Your task to perform on an android device: toggle wifi Image 0: 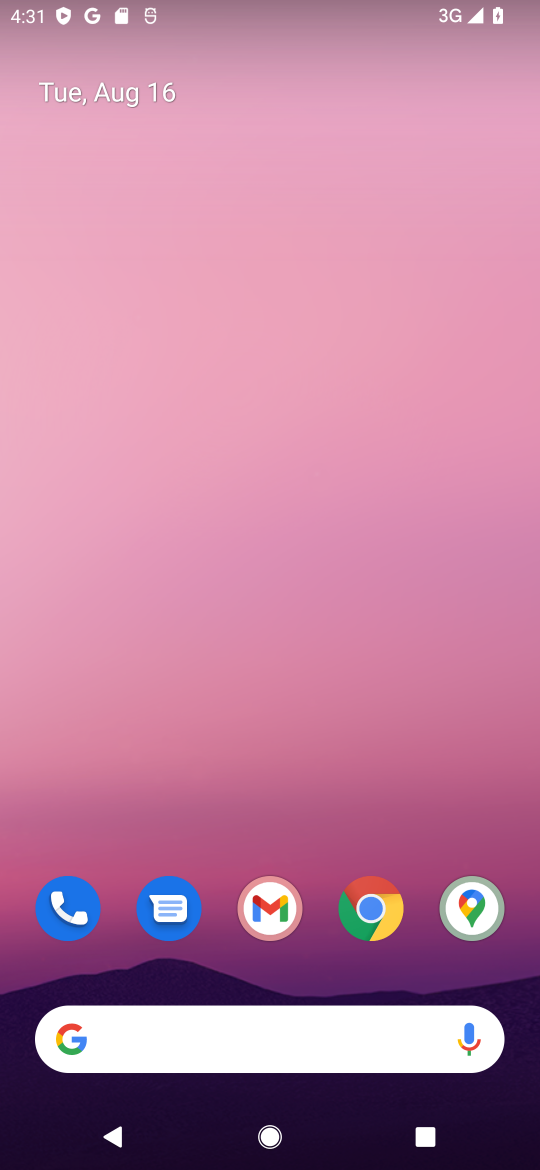
Step 0: drag from (205, 39) to (229, 815)
Your task to perform on an android device: toggle wifi Image 1: 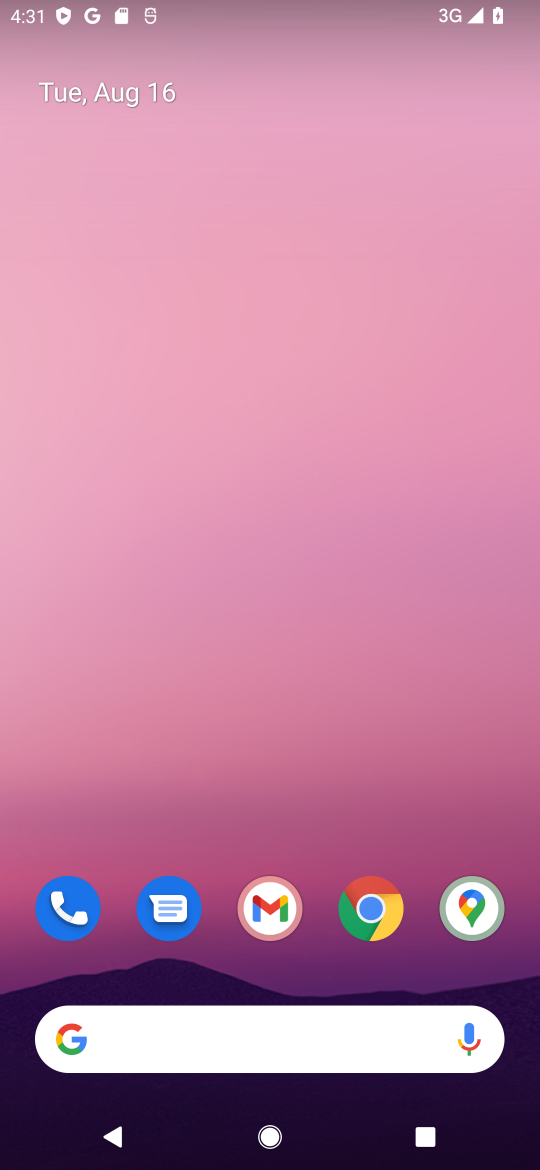
Step 1: drag from (177, 12) to (281, 919)
Your task to perform on an android device: toggle wifi Image 2: 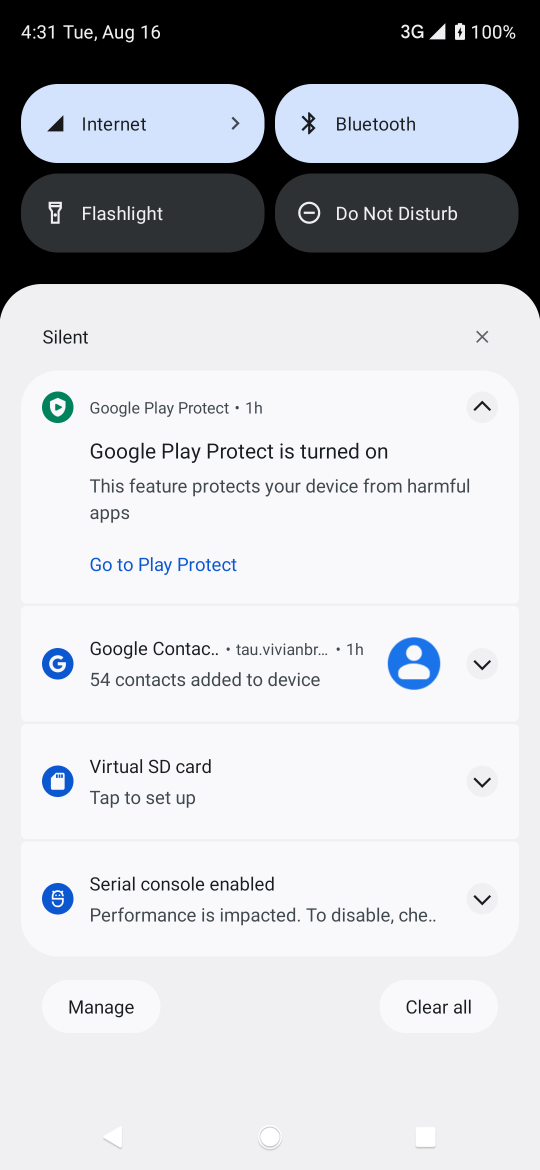
Step 2: click (129, 117)
Your task to perform on an android device: toggle wifi Image 3: 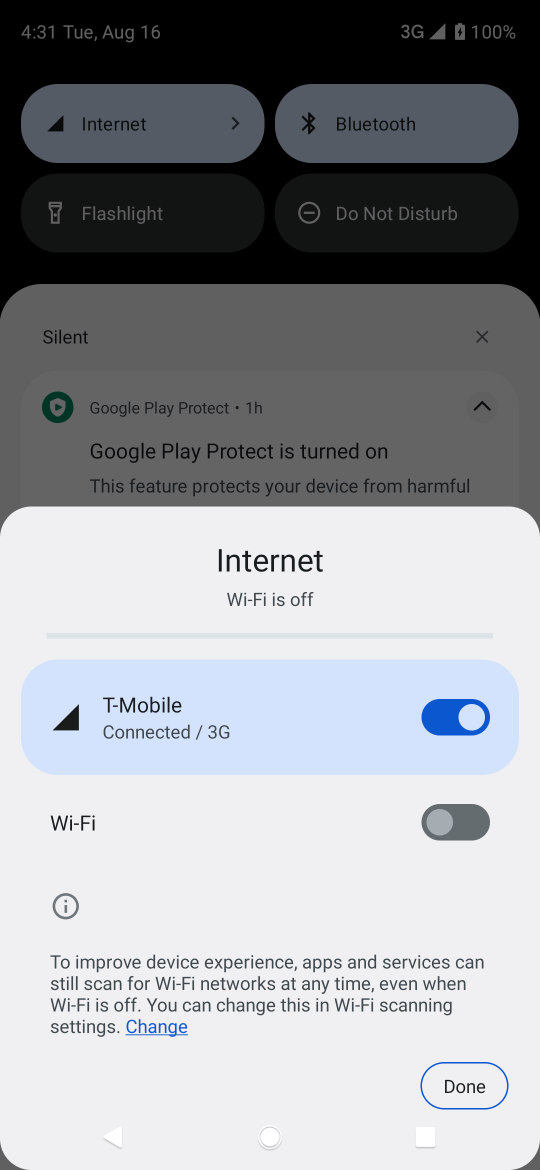
Step 3: click (455, 837)
Your task to perform on an android device: toggle wifi Image 4: 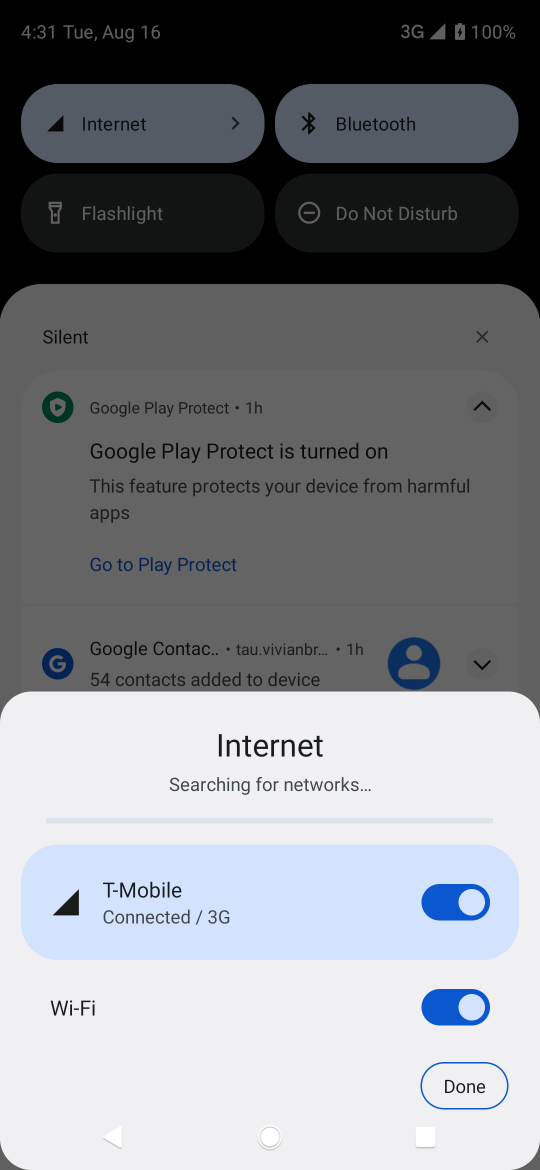
Step 4: task complete